Your task to perform on an android device: Empty the shopping cart on walmart. Search for "beats solo 3" on walmart, select the first entry, add it to the cart, then select checkout. Image 0: 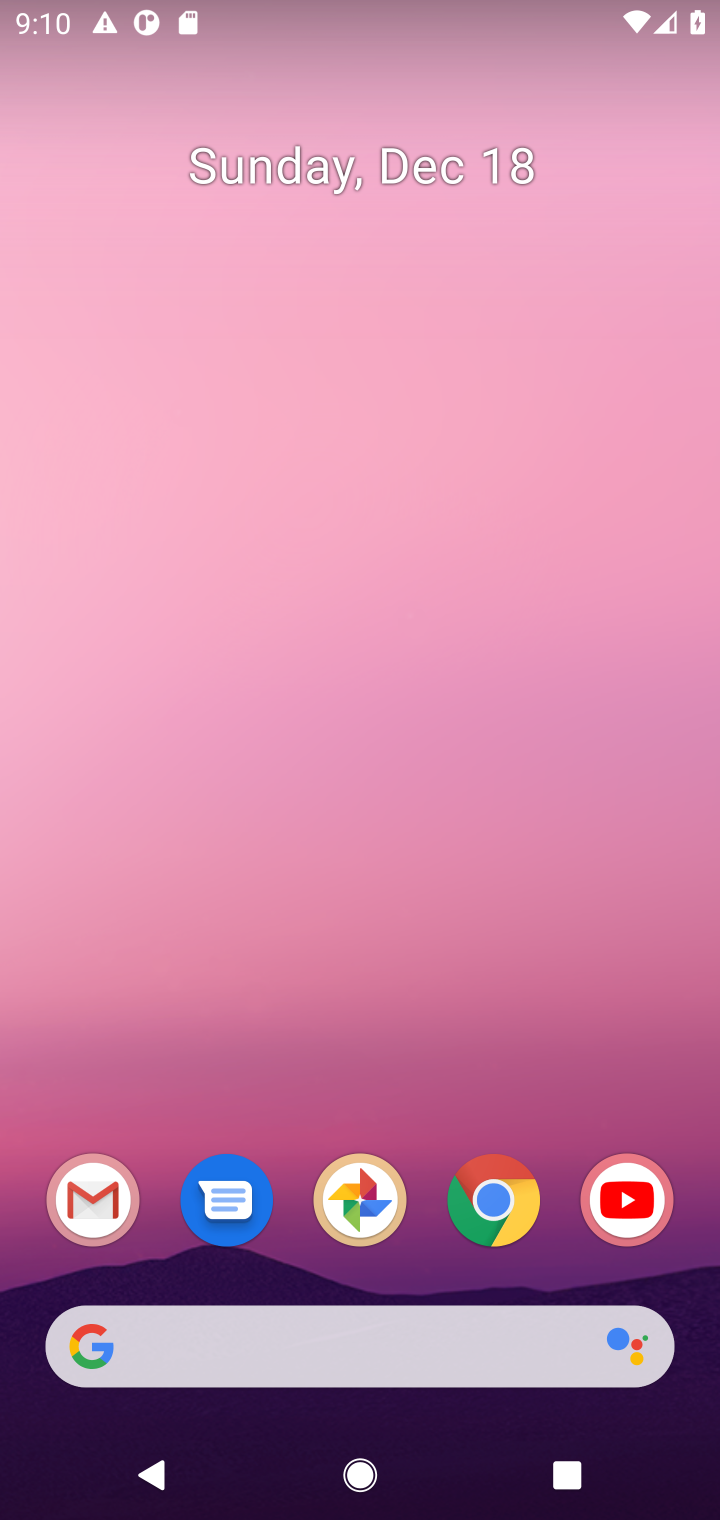
Step 0: click (515, 1215)
Your task to perform on an android device: Empty the shopping cart on walmart. Search for "beats solo 3" on walmart, select the first entry, add it to the cart, then select checkout. Image 1: 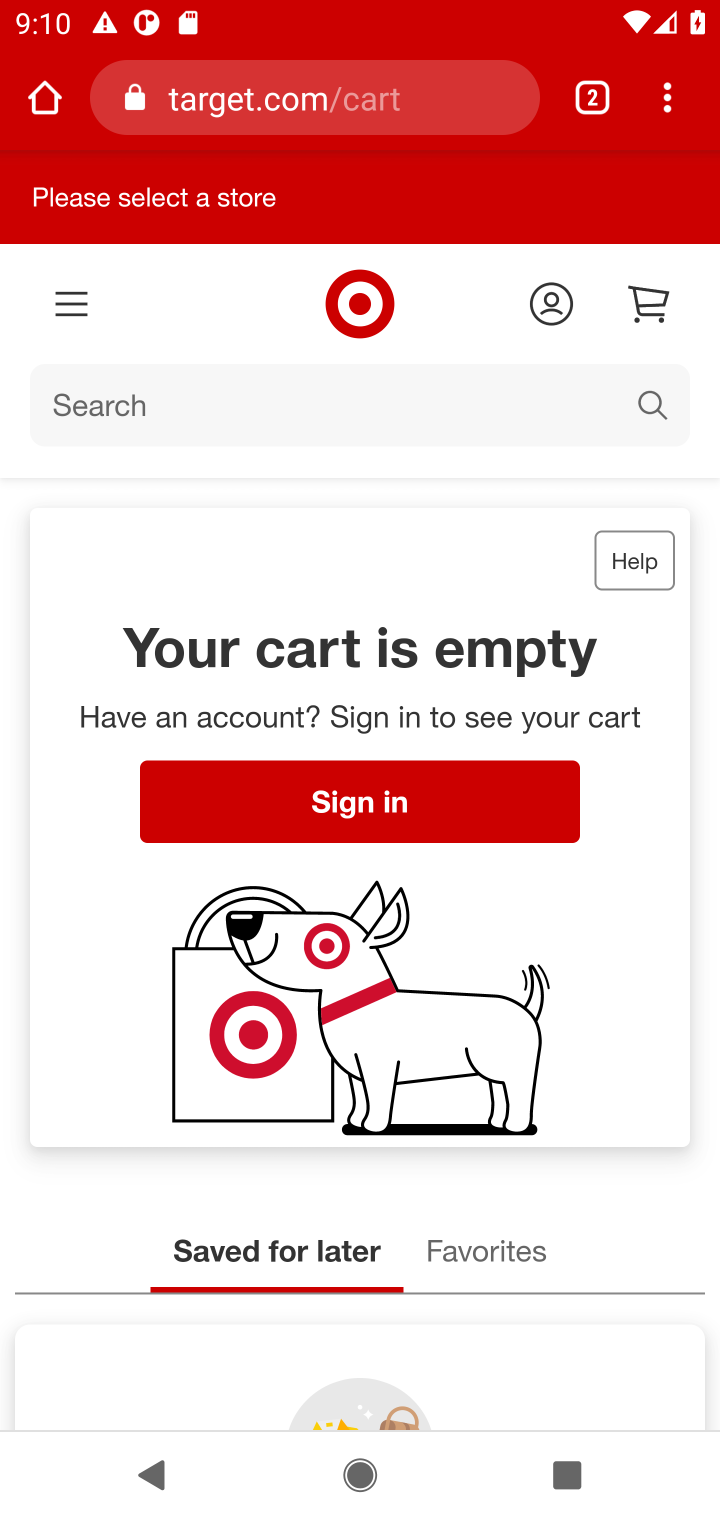
Step 1: click (210, 105)
Your task to perform on an android device: Empty the shopping cart on walmart. Search for "beats solo 3" on walmart, select the first entry, add it to the cart, then select checkout. Image 2: 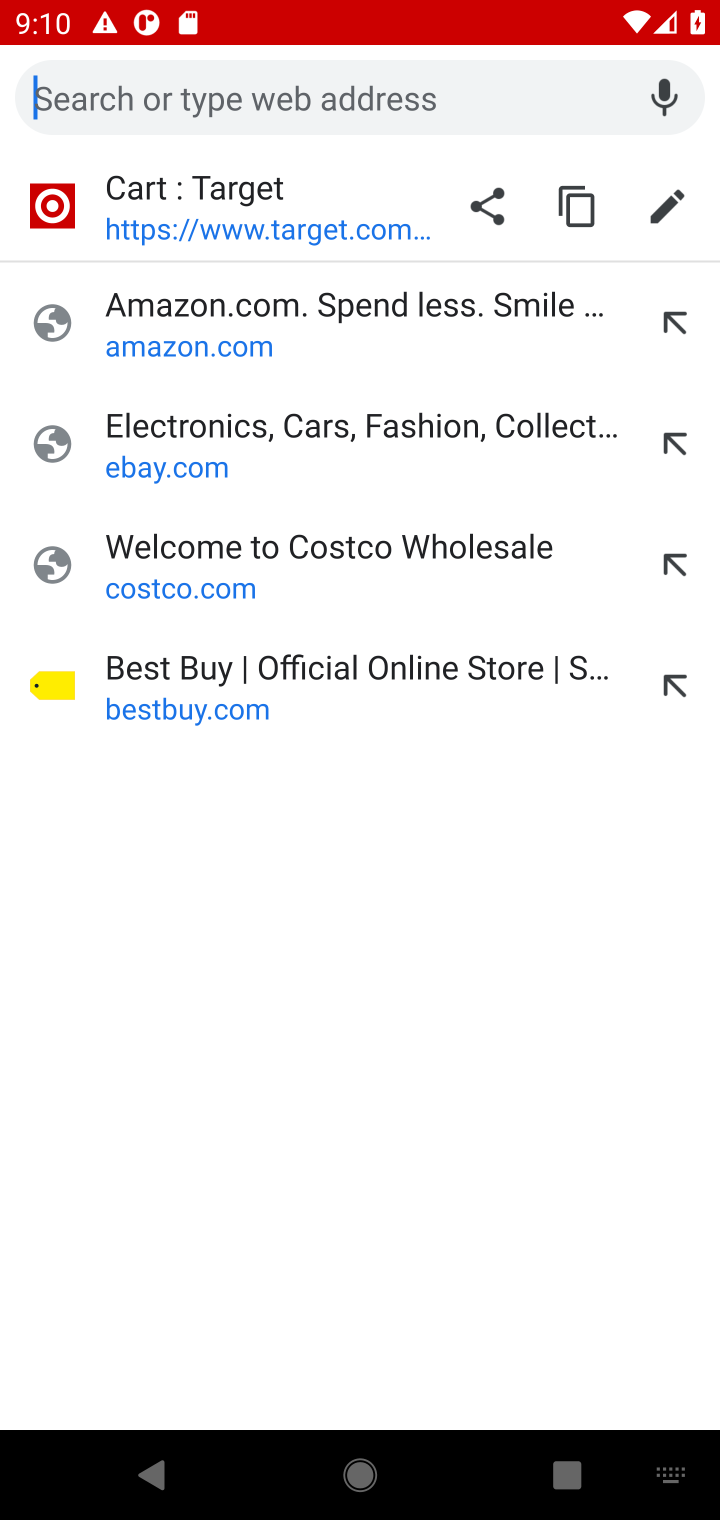
Step 2: type "walmart.com"
Your task to perform on an android device: Empty the shopping cart on walmart. Search for "beats solo 3" on walmart, select the first entry, add it to the cart, then select checkout. Image 3: 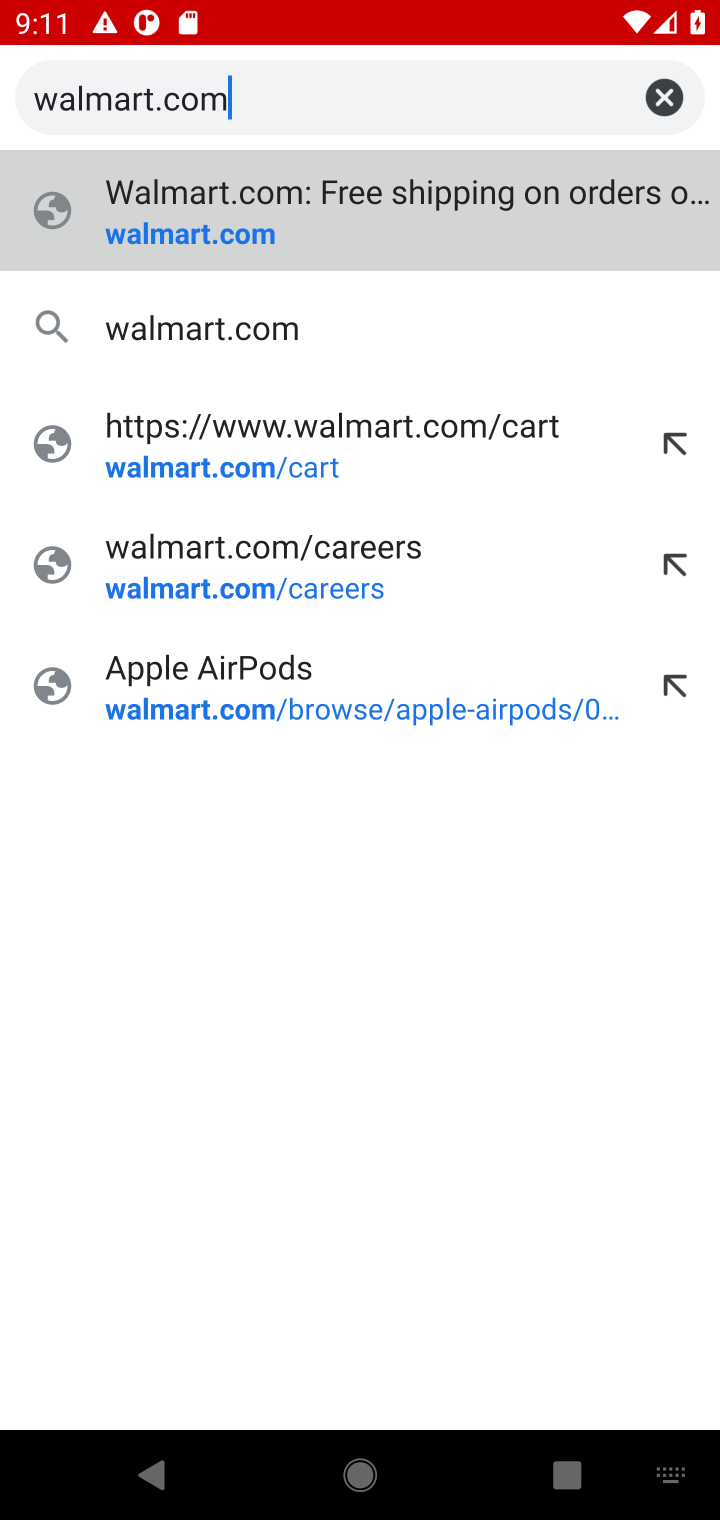
Step 3: click (200, 225)
Your task to perform on an android device: Empty the shopping cart on walmart. Search for "beats solo 3" on walmart, select the first entry, add it to the cart, then select checkout. Image 4: 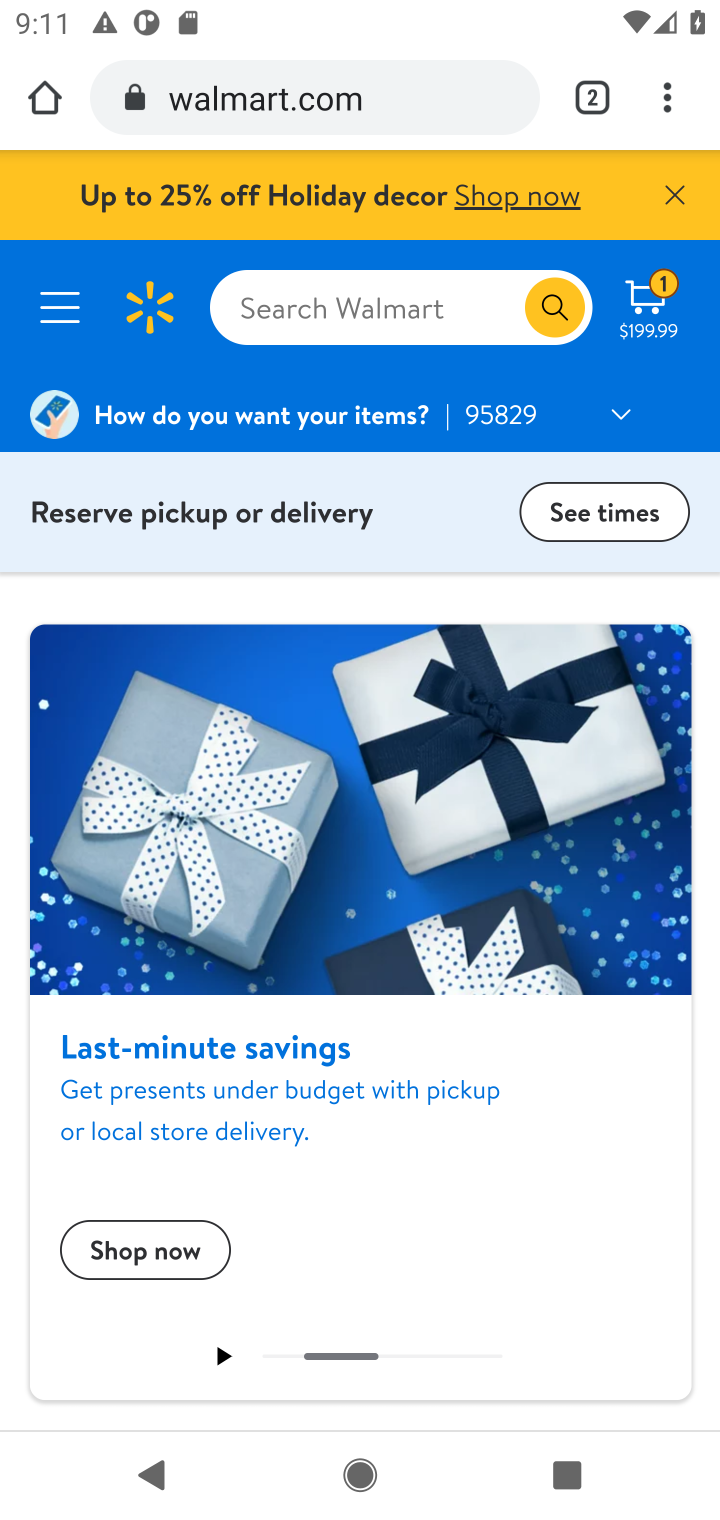
Step 4: click (636, 319)
Your task to perform on an android device: Empty the shopping cart on walmart. Search for "beats solo 3" on walmart, select the first entry, add it to the cart, then select checkout. Image 5: 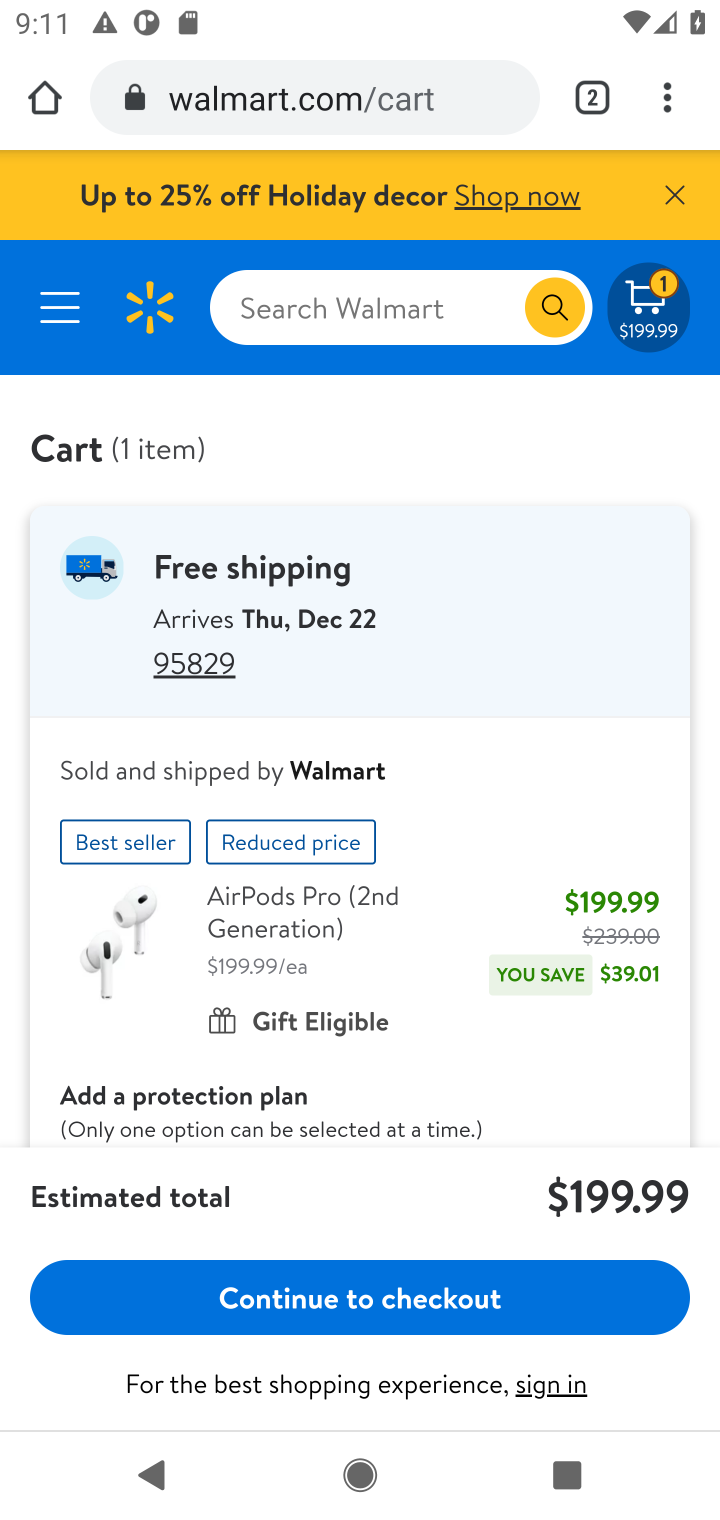
Step 5: drag from (442, 866) to (427, 294)
Your task to perform on an android device: Empty the shopping cart on walmart. Search for "beats solo 3" on walmart, select the first entry, add it to the cart, then select checkout. Image 6: 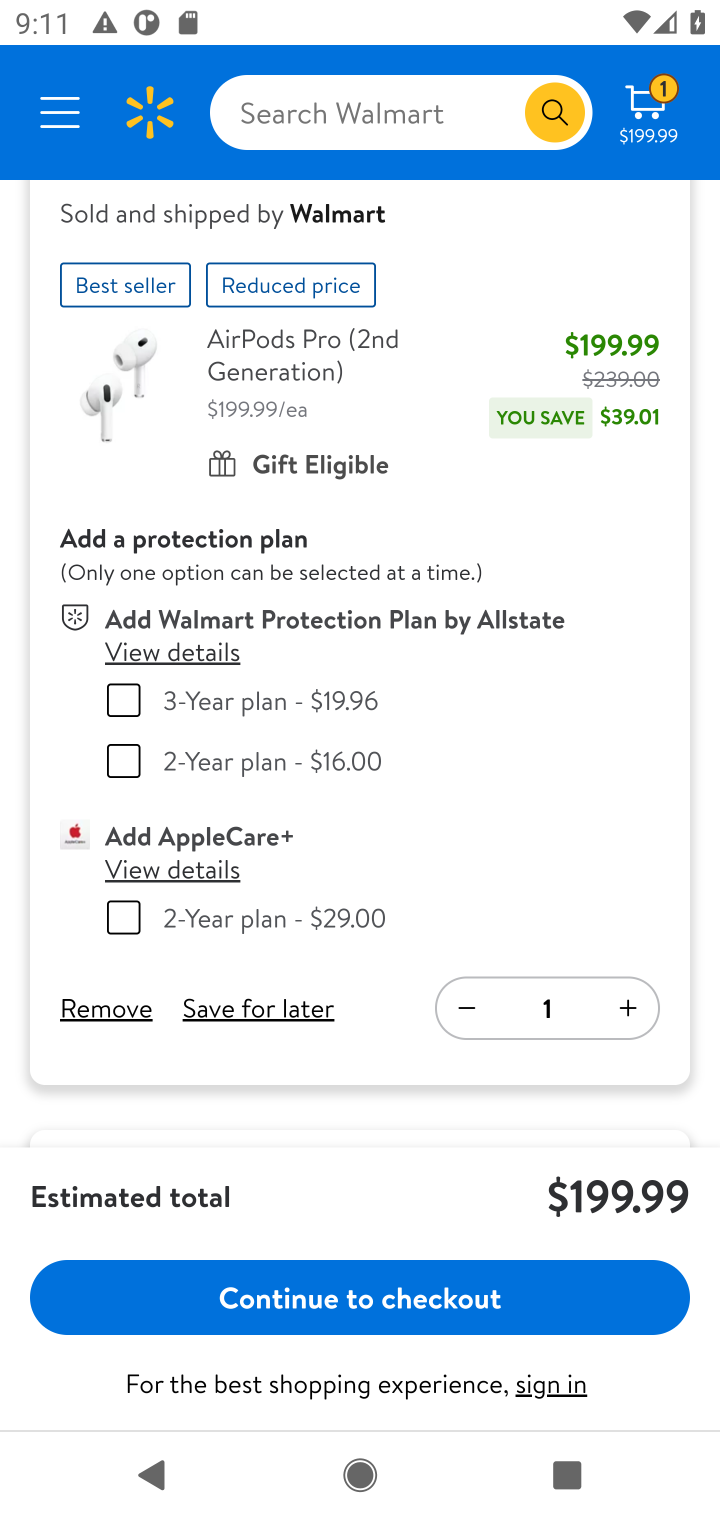
Step 6: click (82, 1003)
Your task to perform on an android device: Empty the shopping cart on walmart. Search for "beats solo 3" on walmart, select the first entry, add it to the cart, then select checkout. Image 7: 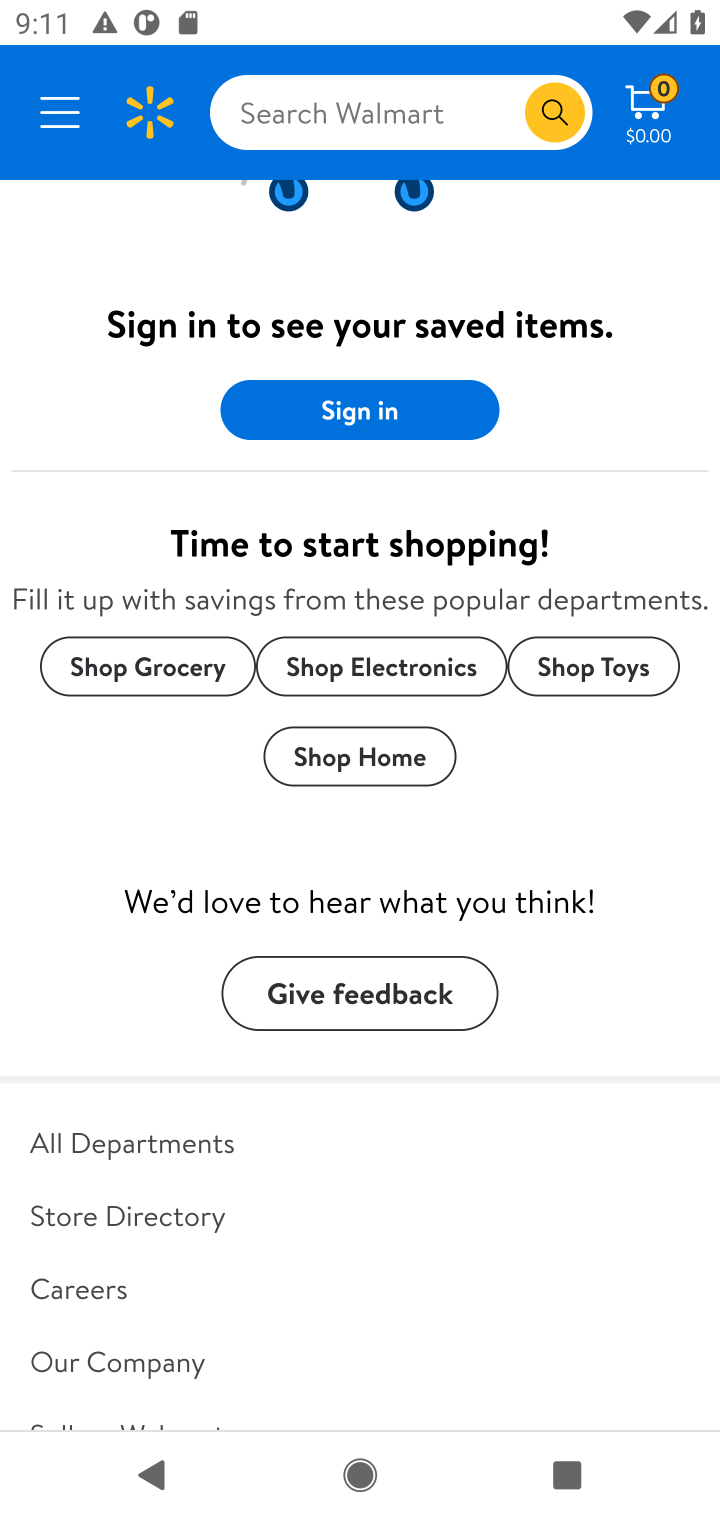
Step 7: click (334, 118)
Your task to perform on an android device: Empty the shopping cart on walmart. Search for "beats solo 3" on walmart, select the first entry, add it to the cart, then select checkout. Image 8: 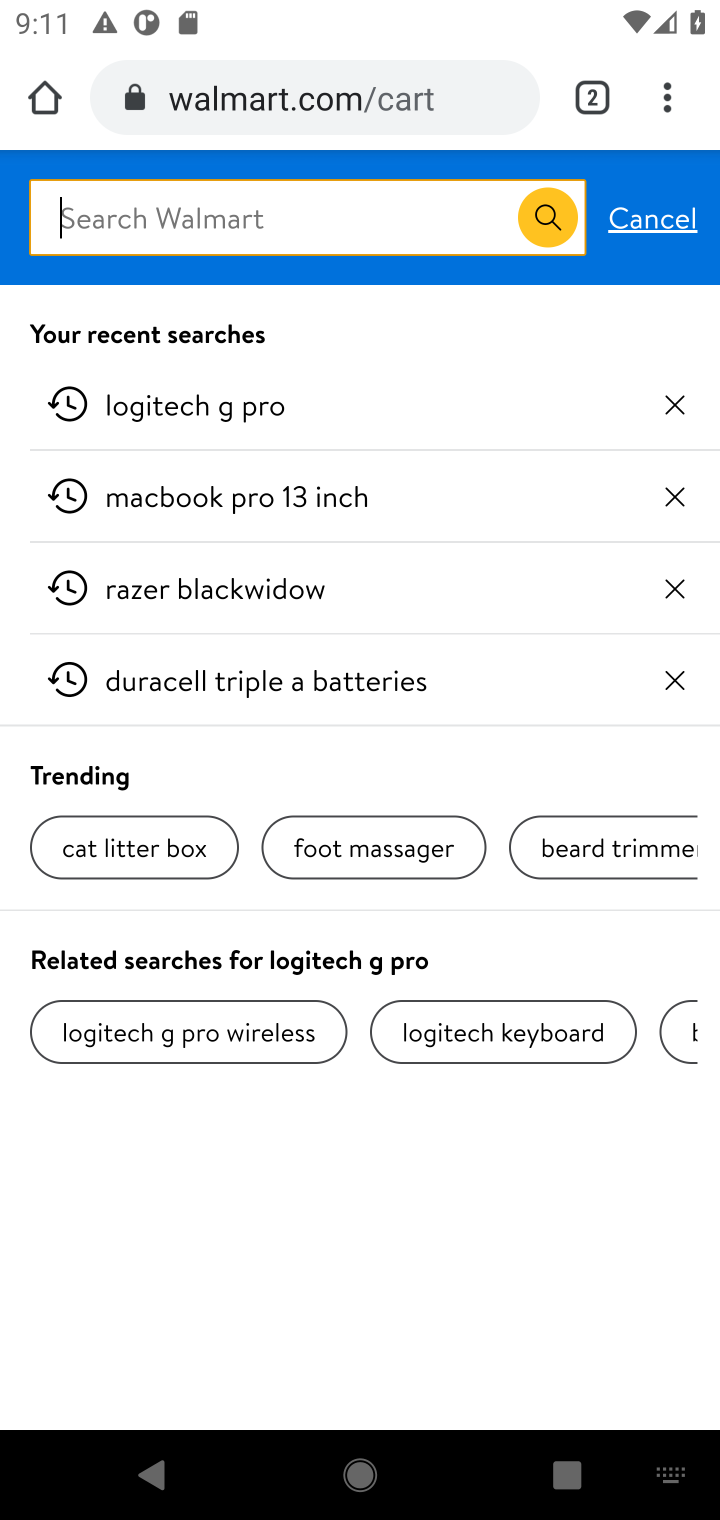
Step 8: type "beats solo 3"
Your task to perform on an android device: Empty the shopping cart on walmart. Search for "beats solo 3" on walmart, select the first entry, add it to the cart, then select checkout. Image 9: 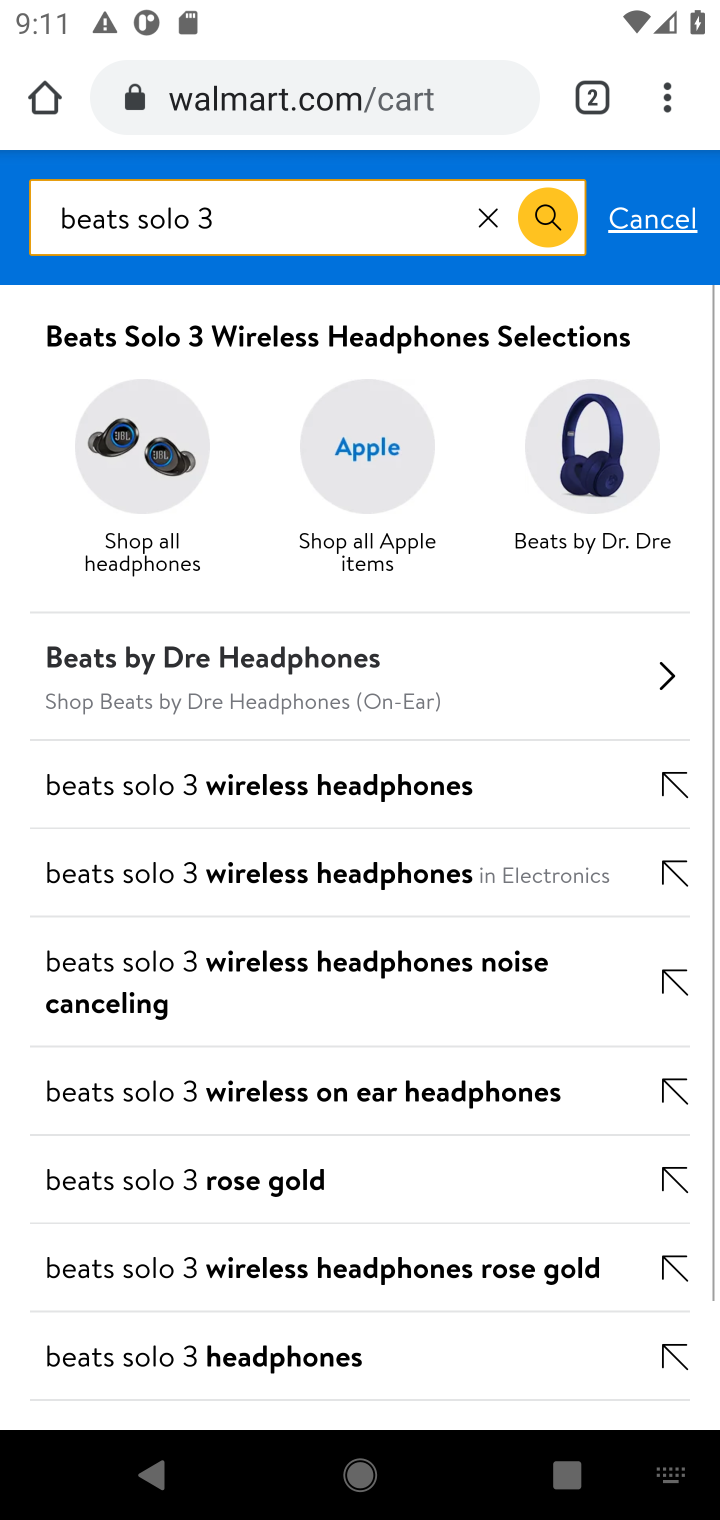
Step 9: click (551, 224)
Your task to perform on an android device: Empty the shopping cart on walmart. Search for "beats solo 3" on walmart, select the first entry, add it to the cart, then select checkout. Image 10: 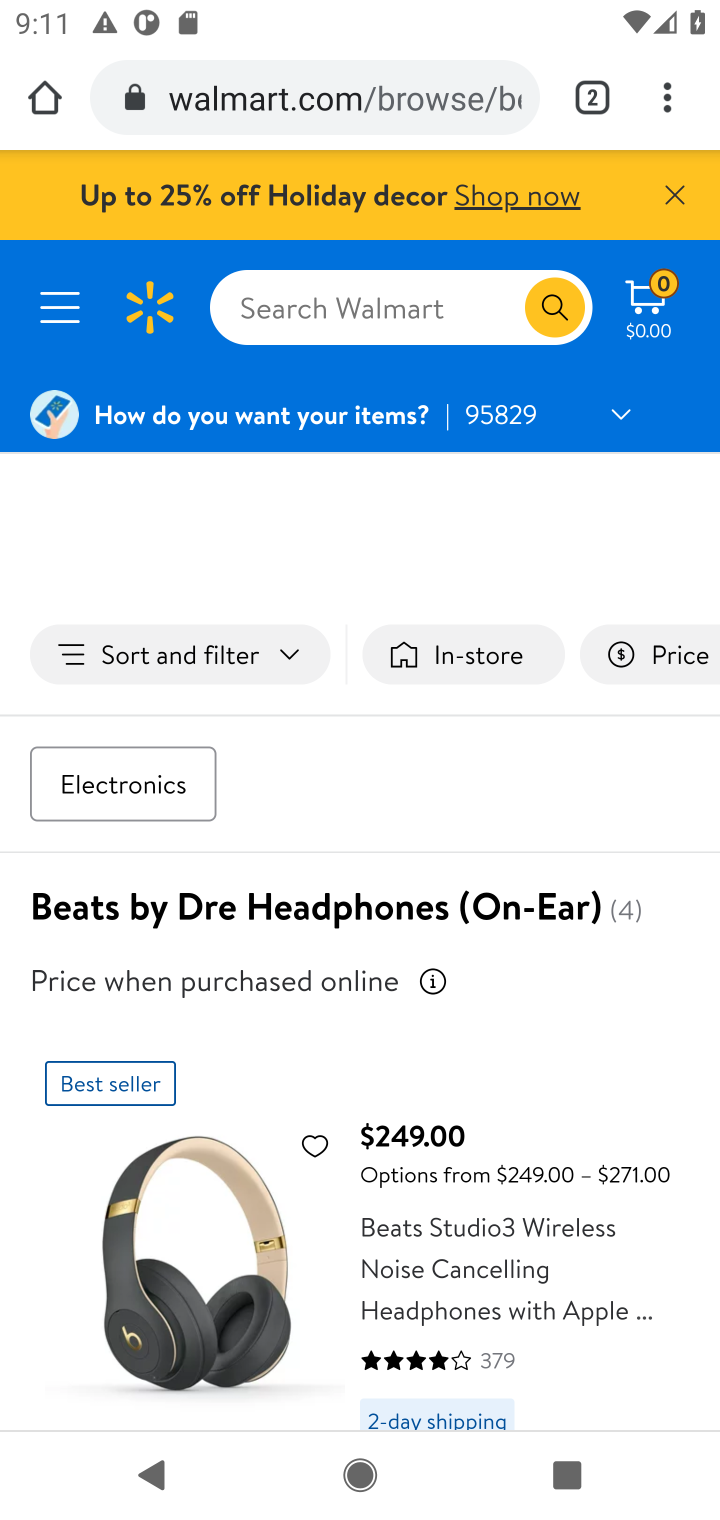
Step 10: task complete